Your task to perform on an android device: turn on airplane mode Image 0: 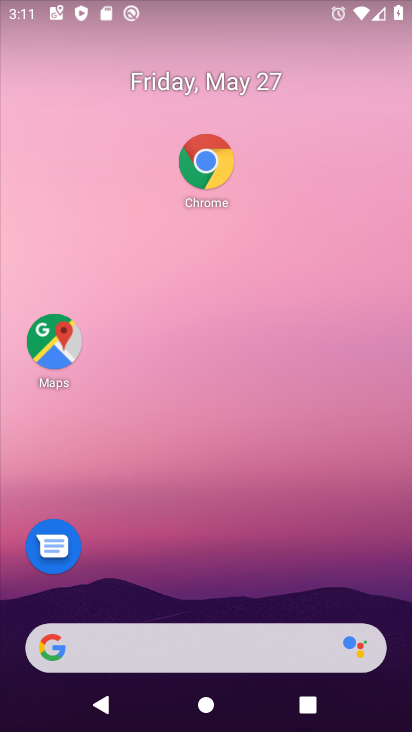
Step 0: drag from (152, 585) to (233, 149)
Your task to perform on an android device: turn on airplane mode Image 1: 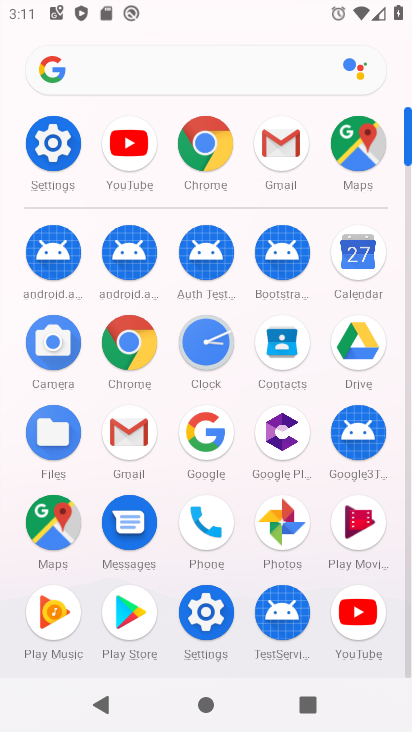
Step 1: click (55, 144)
Your task to perform on an android device: turn on airplane mode Image 2: 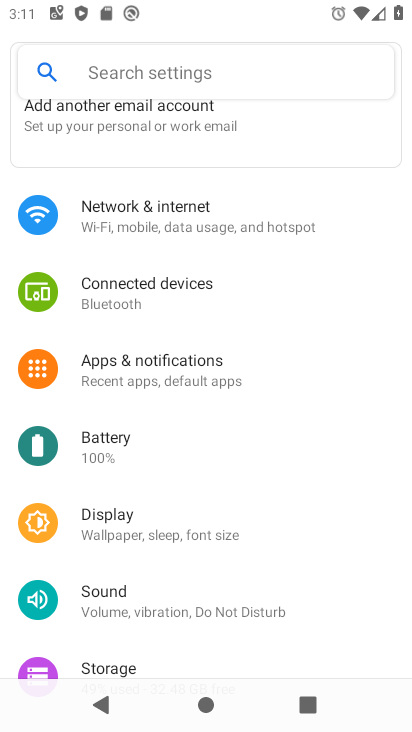
Step 2: click (177, 197)
Your task to perform on an android device: turn on airplane mode Image 3: 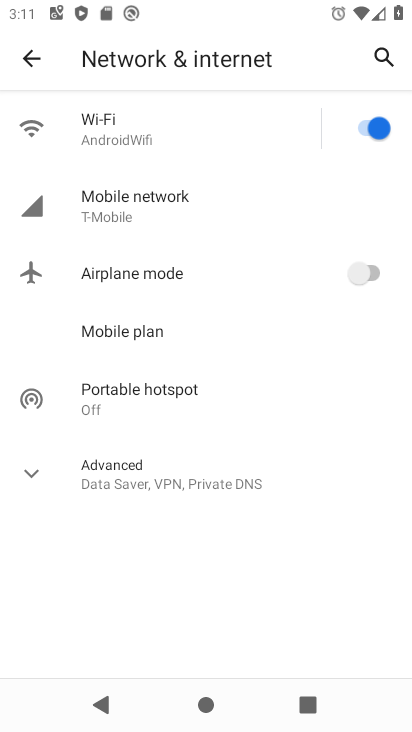
Step 3: click (361, 271)
Your task to perform on an android device: turn on airplane mode Image 4: 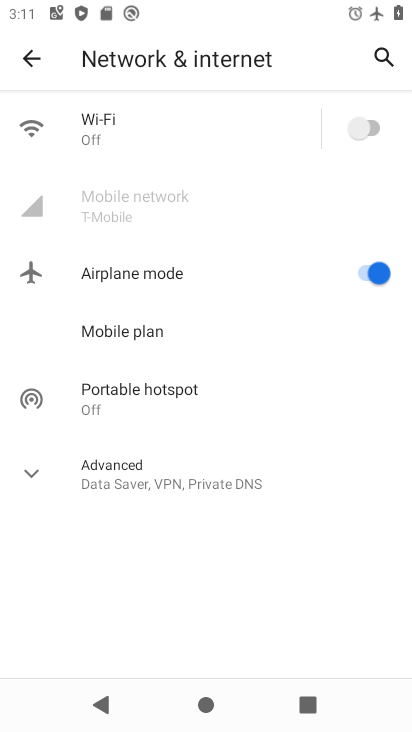
Step 4: task complete